Your task to perform on an android device: Open privacy settings Image 0: 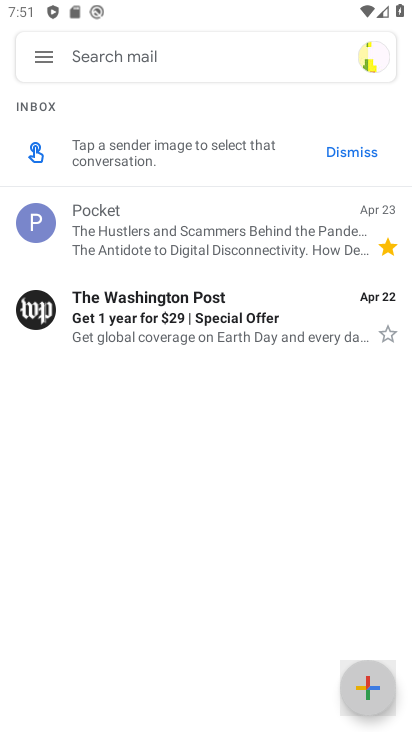
Step 0: press home button
Your task to perform on an android device: Open privacy settings Image 1: 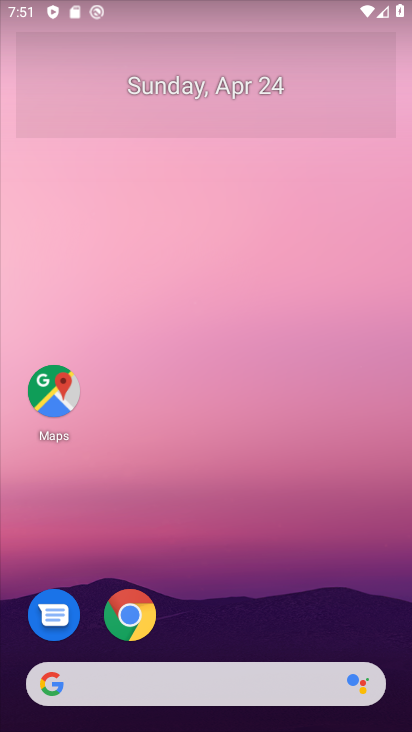
Step 1: drag from (260, 596) to (290, 97)
Your task to perform on an android device: Open privacy settings Image 2: 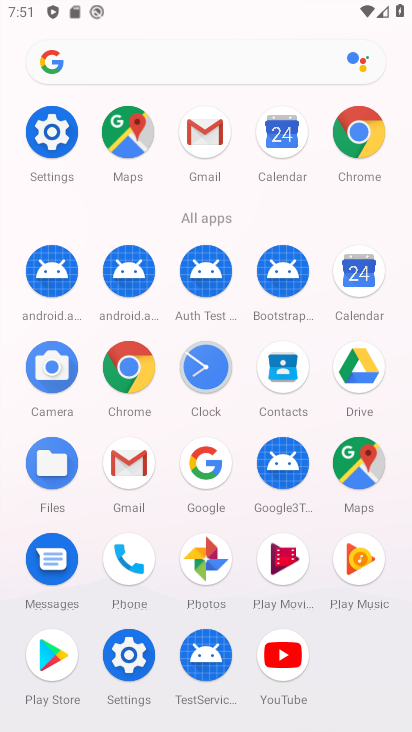
Step 2: click (55, 121)
Your task to perform on an android device: Open privacy settings Image 3: 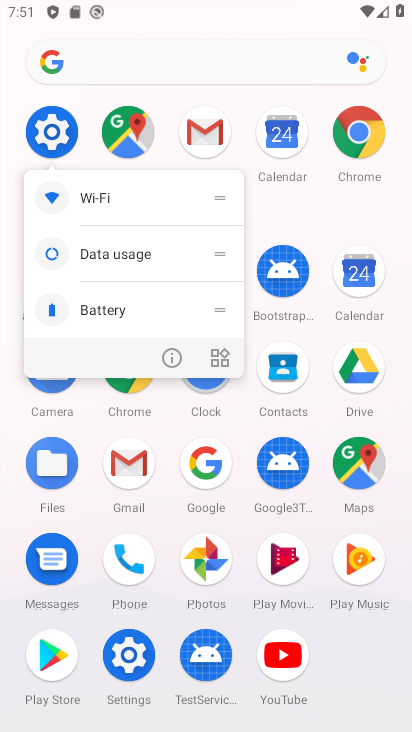
Step 3: click (63, 130)
Your task to perform on an android device: Open privacy settings Image 4: 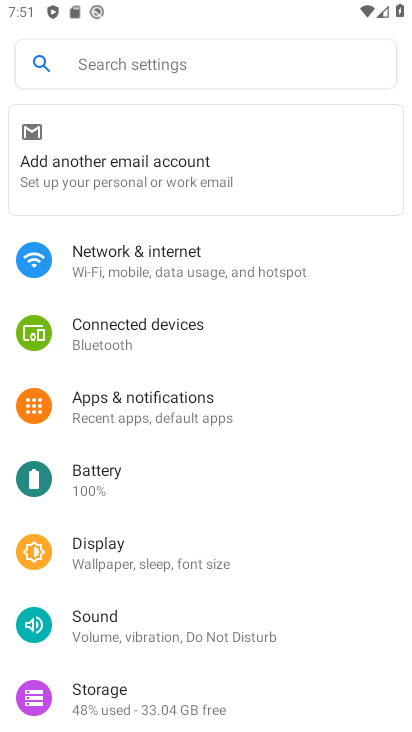
Step 4: drag from (333, 498) to (362, 127)
Your task to perform on an android device: Open privacy settings Image 5: 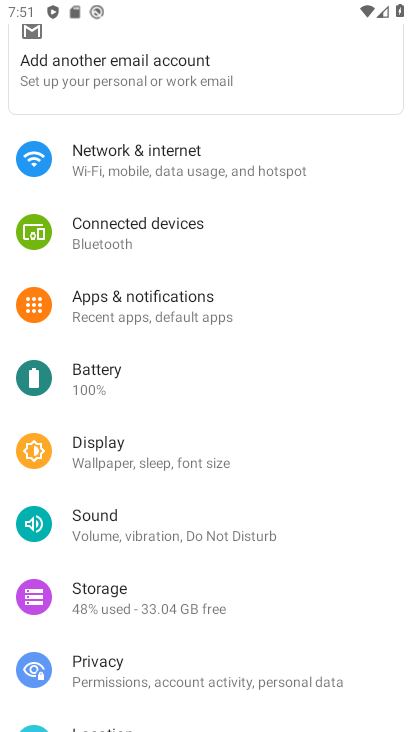
Step 5: click (168, 676)
Your task to perform on an android device: Open privacy settings Image 6: 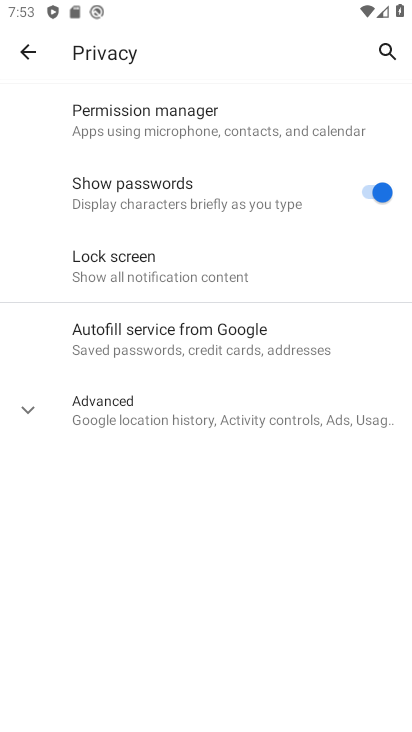
Step 6: task complete